Your task to perform on an android device: What's the weather going to be tomorrow? Image 0: 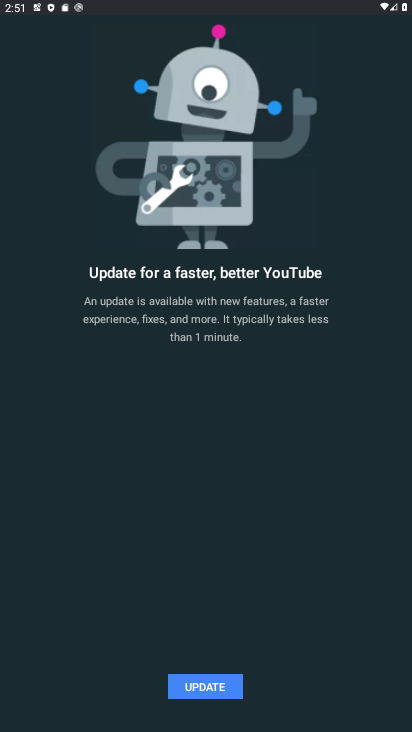
Step 0: press home button
Your task to perform on an android device: What's the weather going to be tomorrow? Image 1: 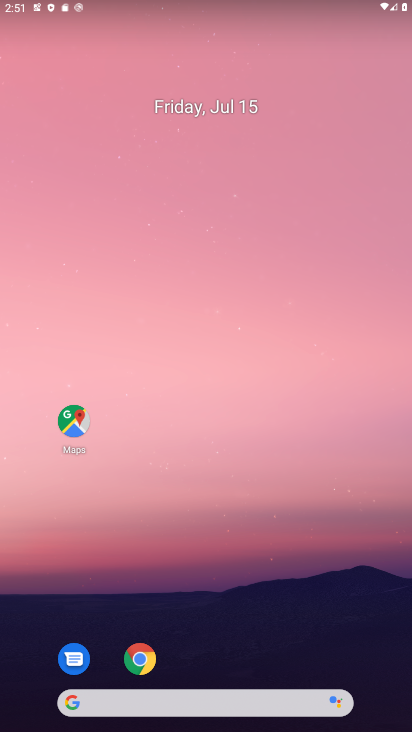
Step 1: drag from (188, 633) to (200, 350)
Your task to perform on an android device: What's the weather going to be tomorrow? Image 2: 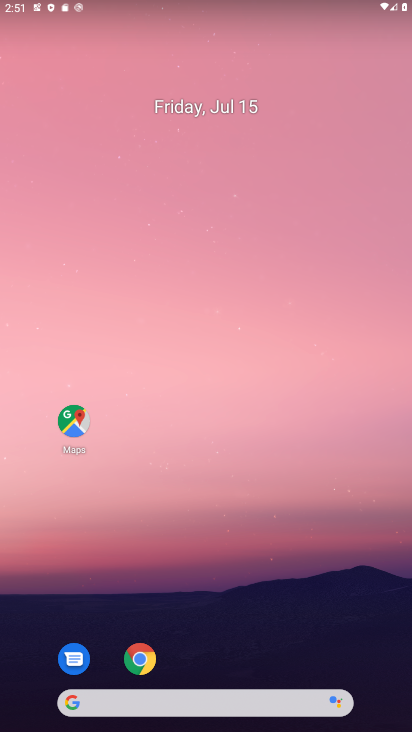
Step 2: drag from (162, 621) to (172, 150)
Your task to perform on an android device: What's the weather going to be tomorrow? Image 3: 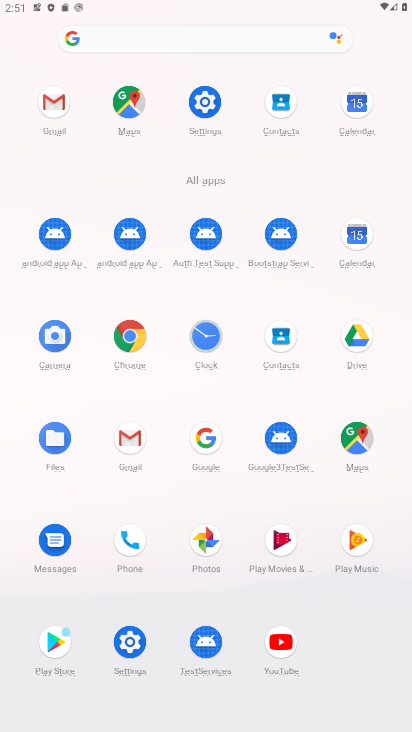
Step 3: click (207, 434)
Your task to perform on an android device: What's the weather going to be tomorrow? Image 4: 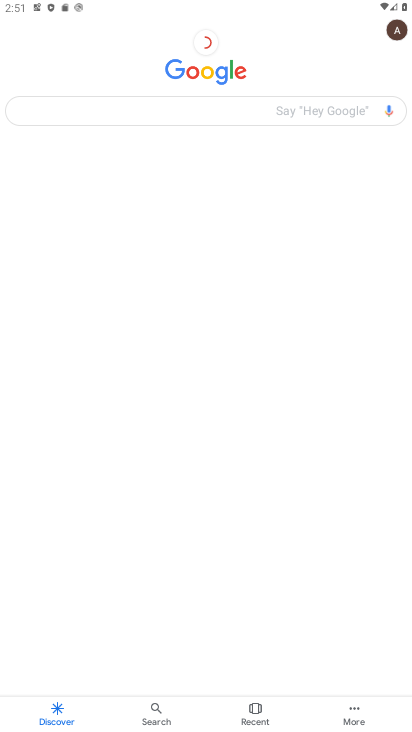
Step 4: click (105, 106)
Your task to perform on an android device: What's the weather going to be tomorrow? Image 5: 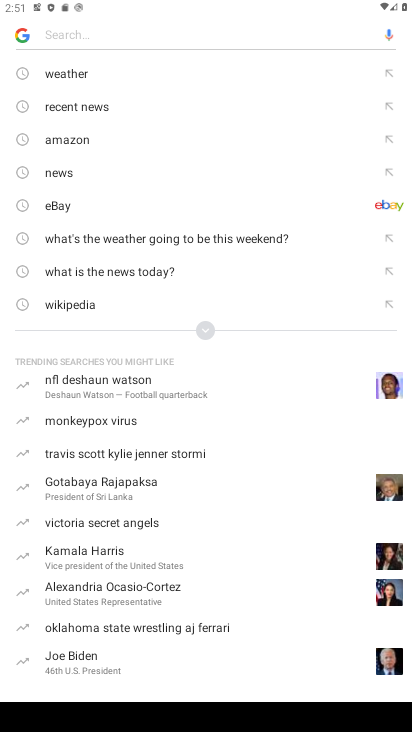
Step 5: click (86, 249)
Your task to perform on an android device: What's the weather going to be tomorrow? Image 6: 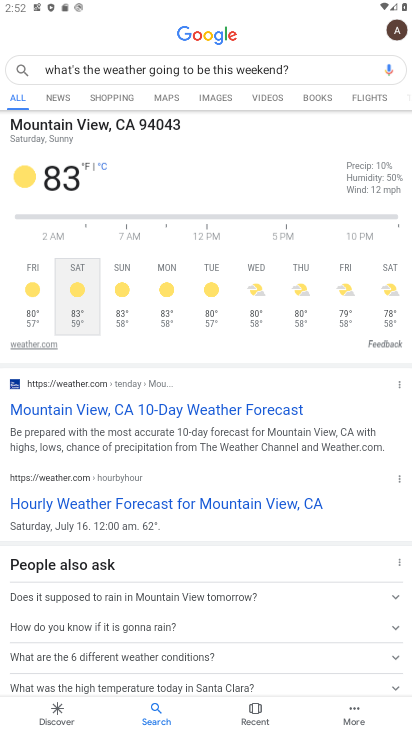
Step 6: task complete